Your task to perform on an android device: turn off priority inbox in the gmail app Image 0: 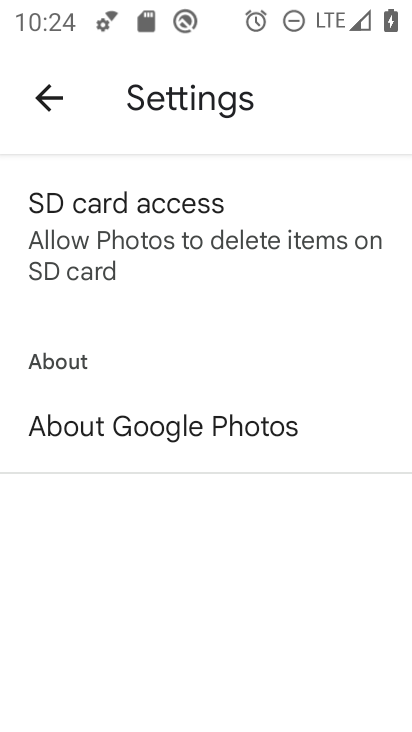
Step 0: press home button
Your task to perform on an android device: turn off priority inbox in the gmail app Image 1: 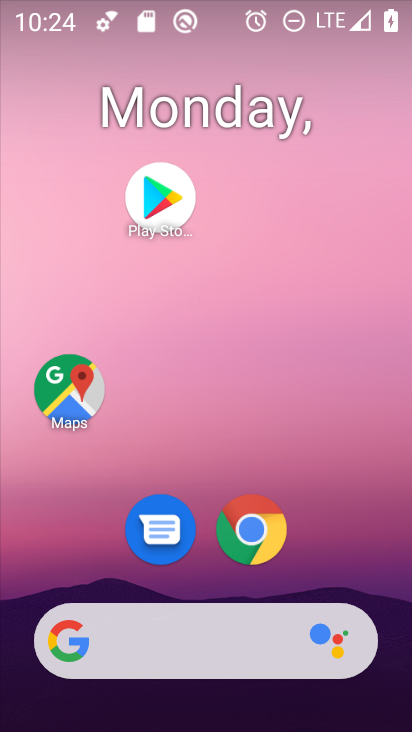
Step 1: drag from (343, 477) to (207, 70)
Your task to perform on an android device: turn off priority inbox in the gmail app Image 2: 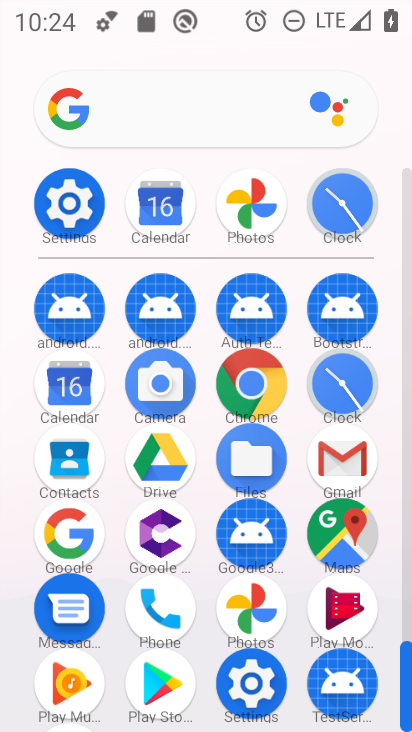
Step 2: click (335, 460)
Your task to perform on an android device: turn off priority inbox in the gmail app Image 3: 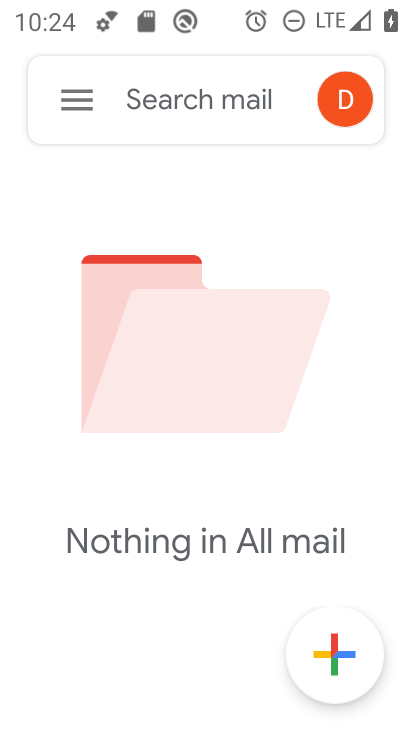
Step 3: click (72, 102)
Your task to perform on an android device: turn off priority inbox in the gmail app Image 4: 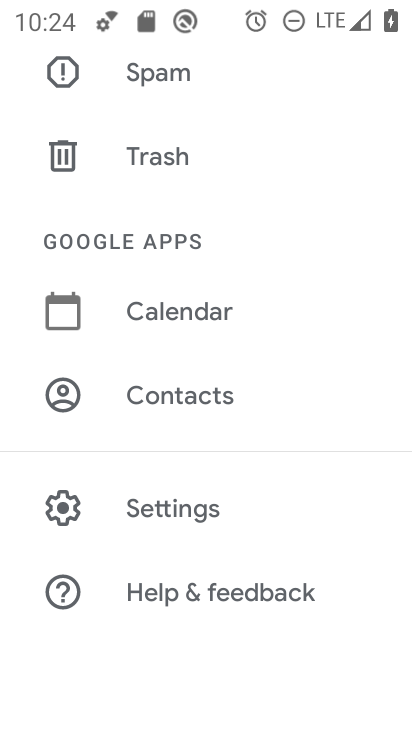
Step 4: click (180, 506)
Your task to perform on an android device: turn off priority inbox in the gmail app Image 5: 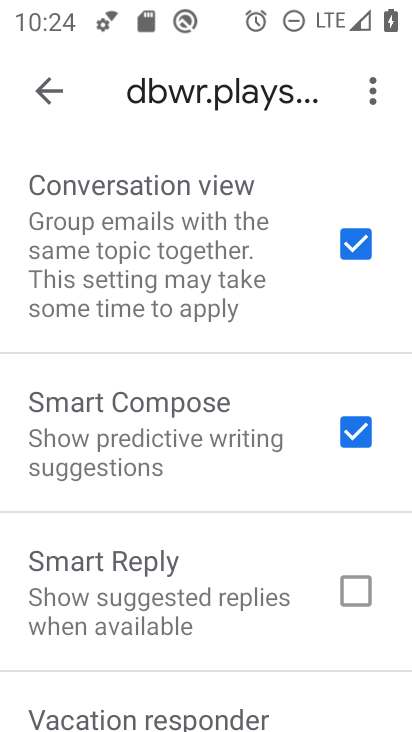
Step 5: drag from (217, 517) to (188, 207)
Your task to perform on an android device: turn off priority inbox in the gmail app Image 6: 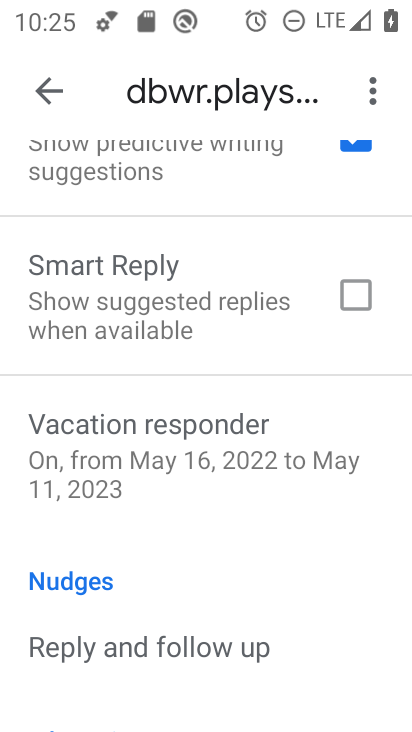
Step 6: drag from (139, 200) to (212, 609)
Your task to perform on an android device: turn off priority inbox in the gmail app Image 7: 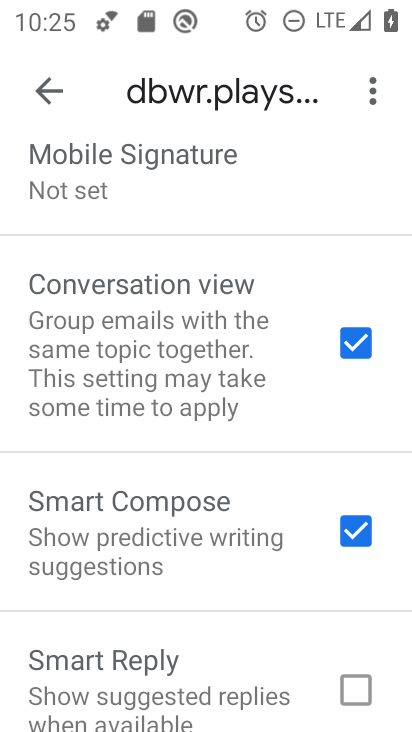
Step 7: drag from (184, 216) to (126, 545)
Your task to perform on an android device: turn off priority inbox in the gmail app Image 8: 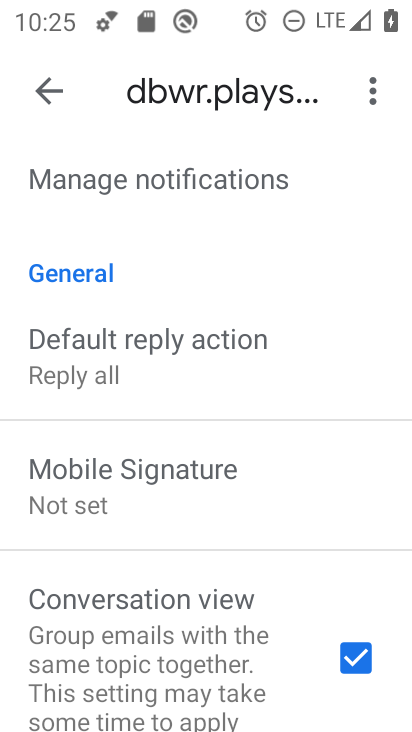
Step 8: drag from (139, 213) to (244, 719)
Your task to perform on an android device: turn off priority inbox in the gmail app Image 9: 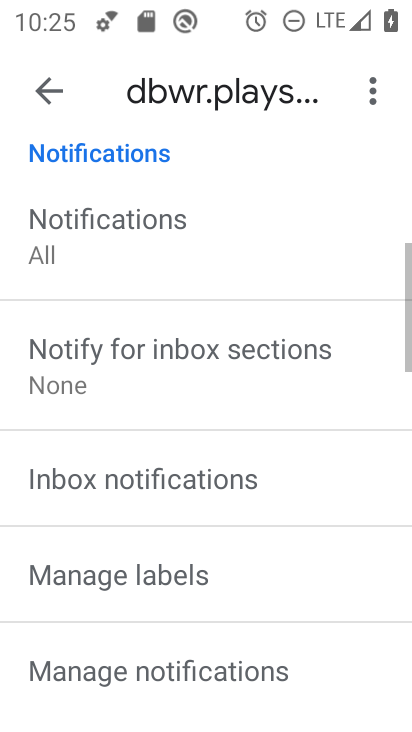
Step 9: drag from (189, 247) to (322, 696)
Your task to perform on an android device: turn off priority inbox in the gmail app Image 10: 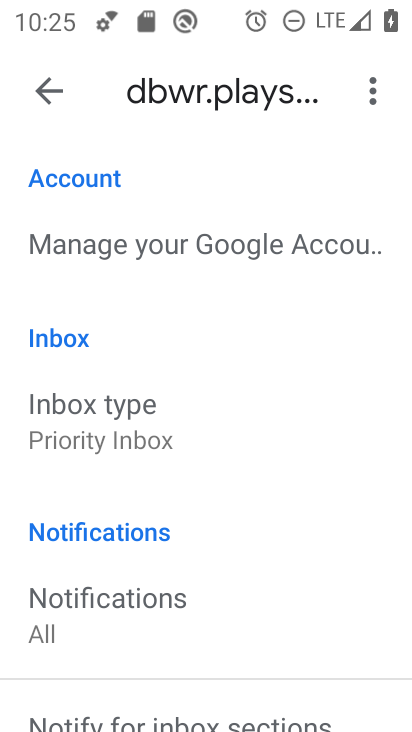
Step 10: click (98, 407)
Your task to perform on an android device: turn off priority inbox in the gmail app Image 11: 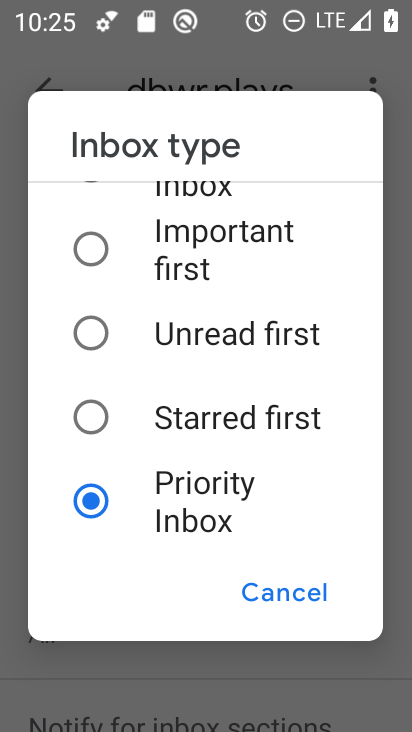
Step 11: click (89, 422)
Your task to perform on an android device: turn off priority inbox in the gmail app Image 12: 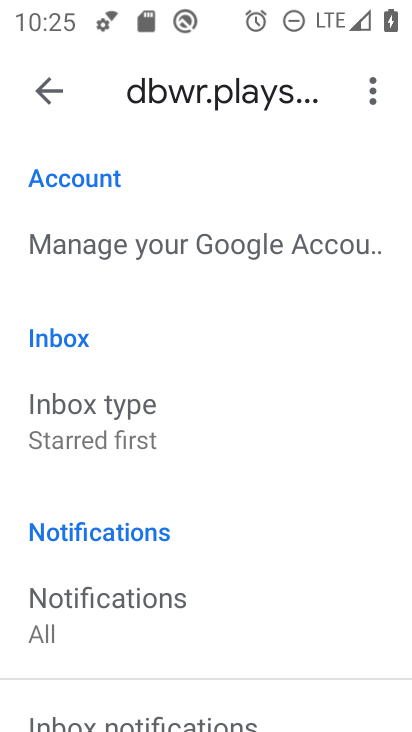
Step 12: task complete